Your task to perform on an android device: Open the play store Image 0: 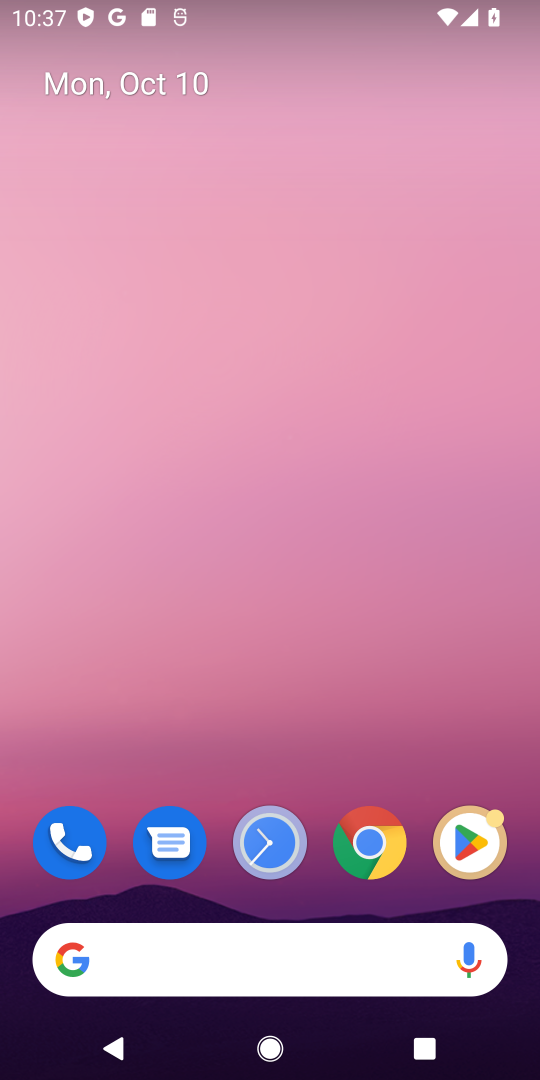
Step 0: click (451, 837)
Your task to perform on an android device: Open the play store Image 1: 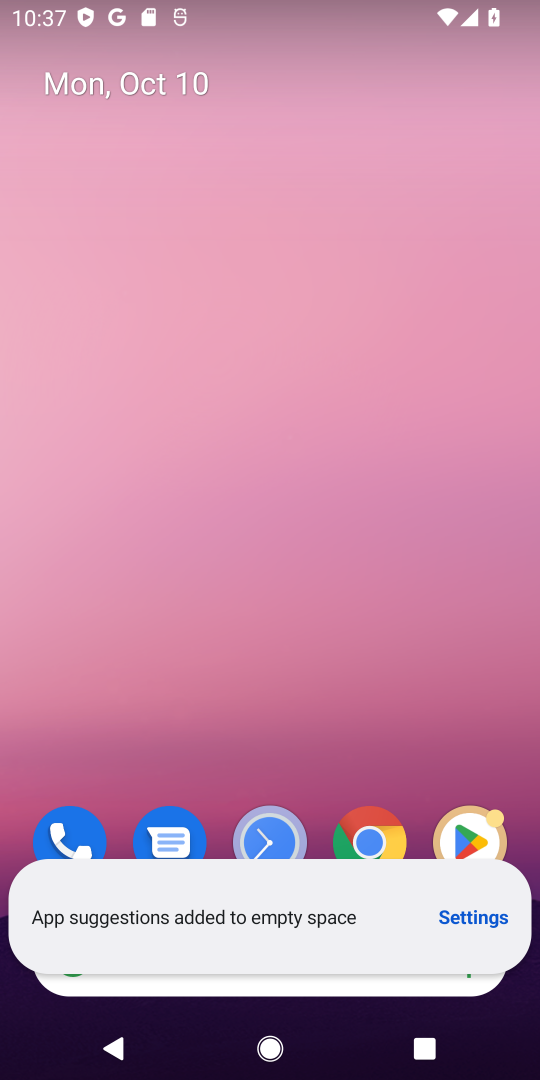
Step 1: click (475, 837)
Your task to perform on an android device: Open the play store Image 2: 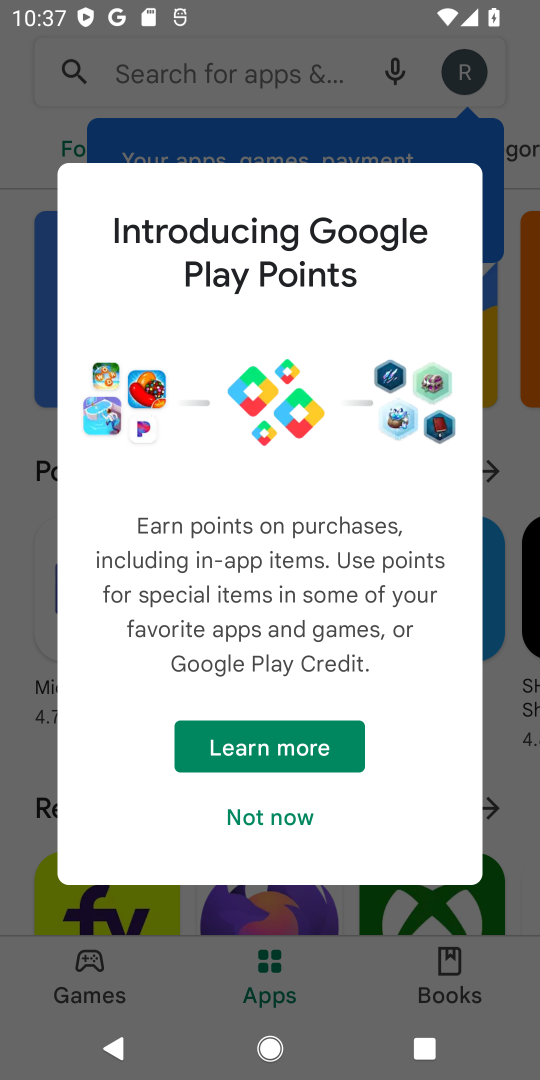
Step 2: click (288, 814)
Your task to perform on an android device: Open the play store Image 3: 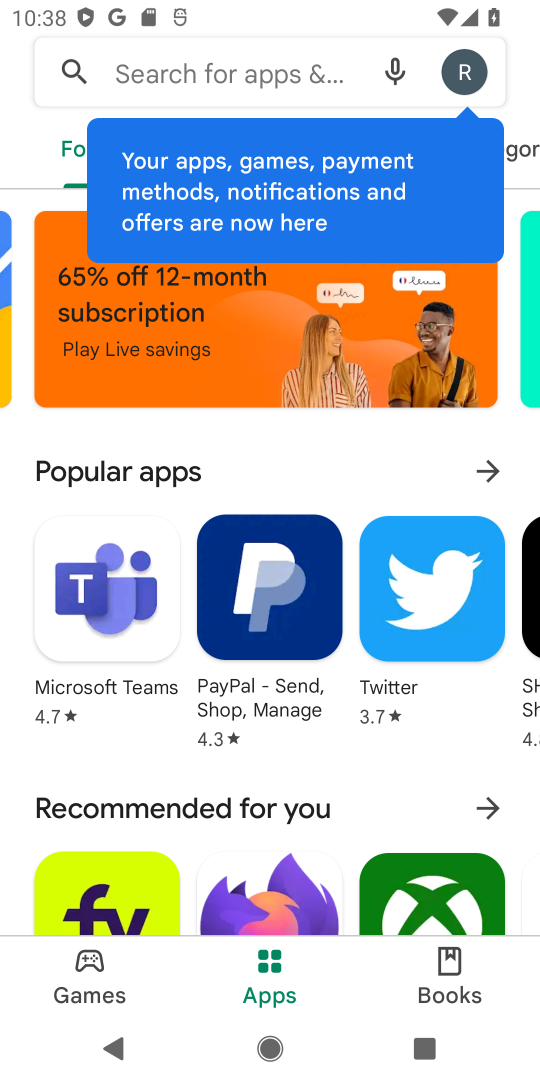
Step 3: task complete